Your task to perform on an android device: turn off improve location accuracy Image 0: 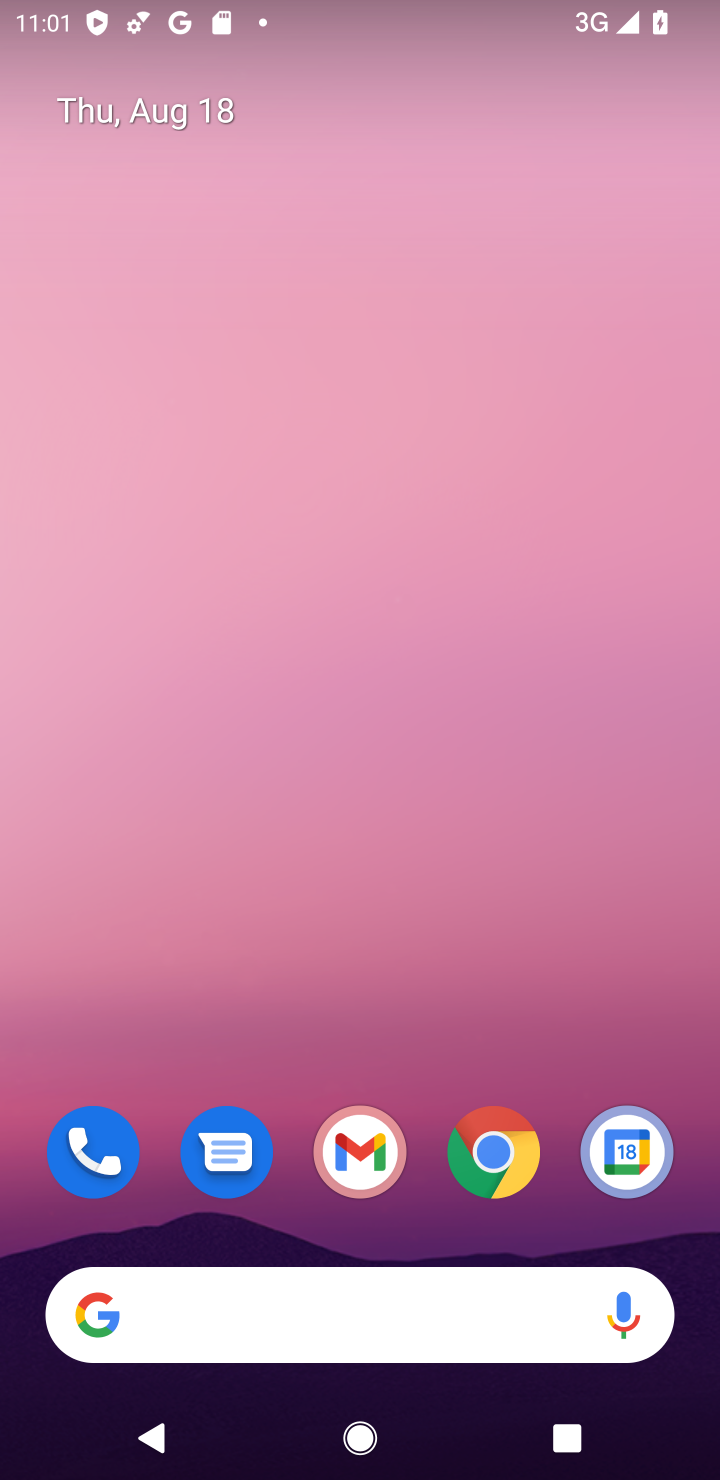
Step 0: drag from (387, 1038) to (475, 22)
Your task to perform on an android device: turn off improve location accuracy Image 1: 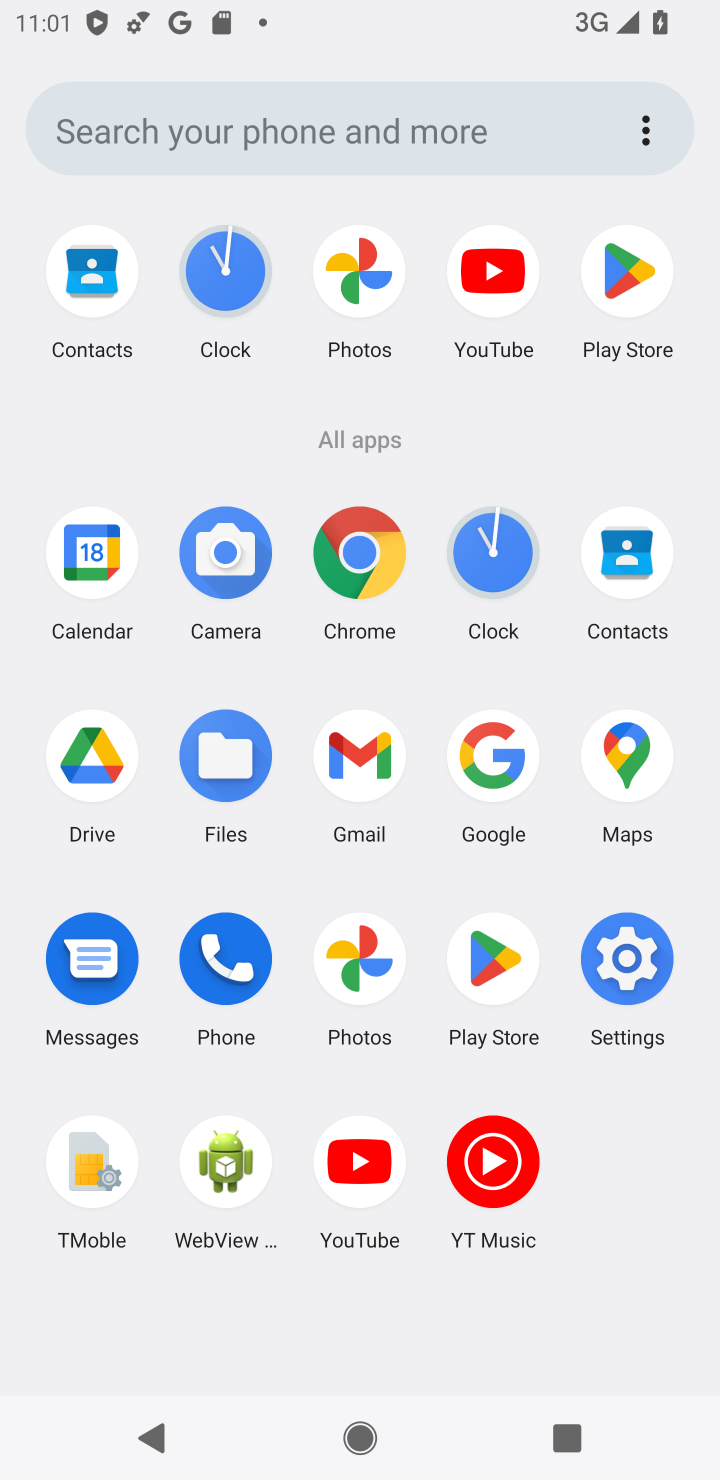
Step 1: click (640, 959)
Your task to perform on an android device: turn off improve location accuracy Image 2: 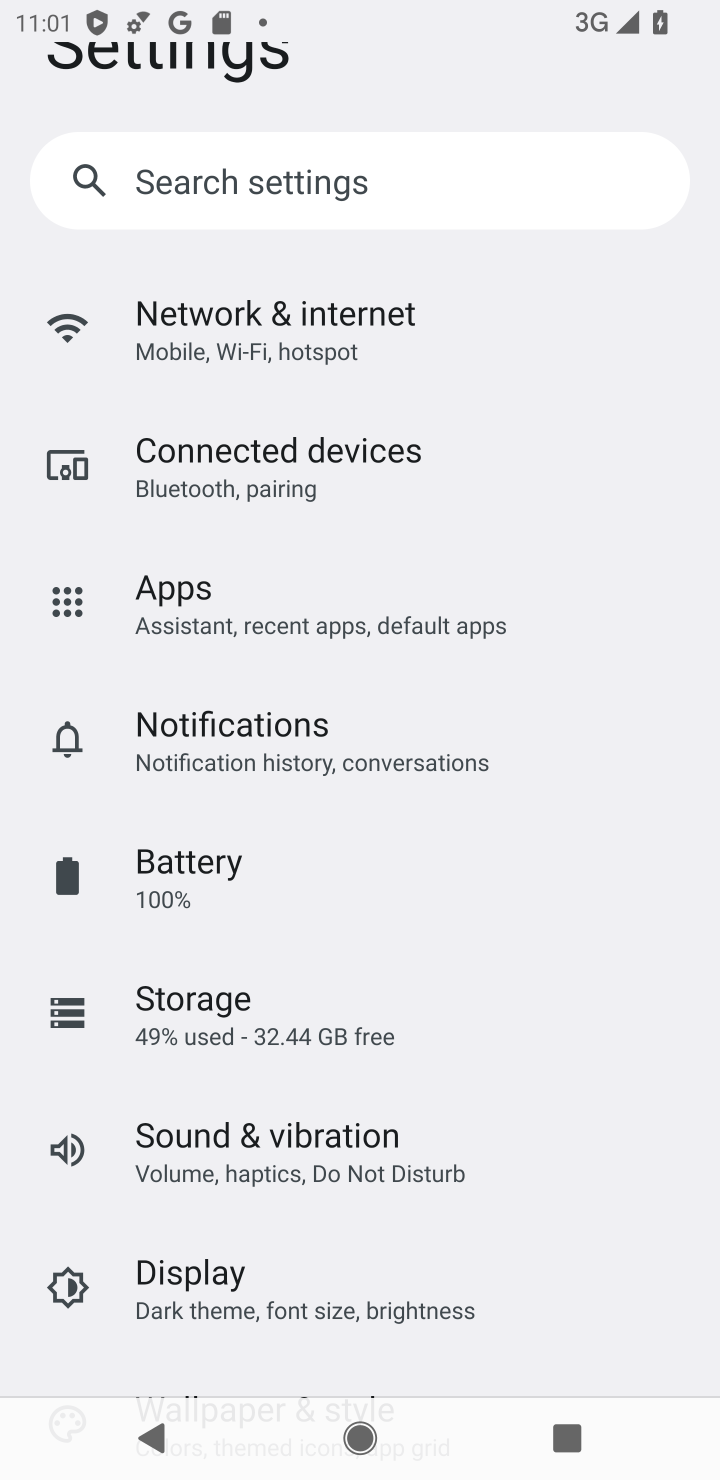
Step 2: drag from (349, 1178) to (349, 420)
Your task to perform on an android device: turn off improve location accuracy Image 3: 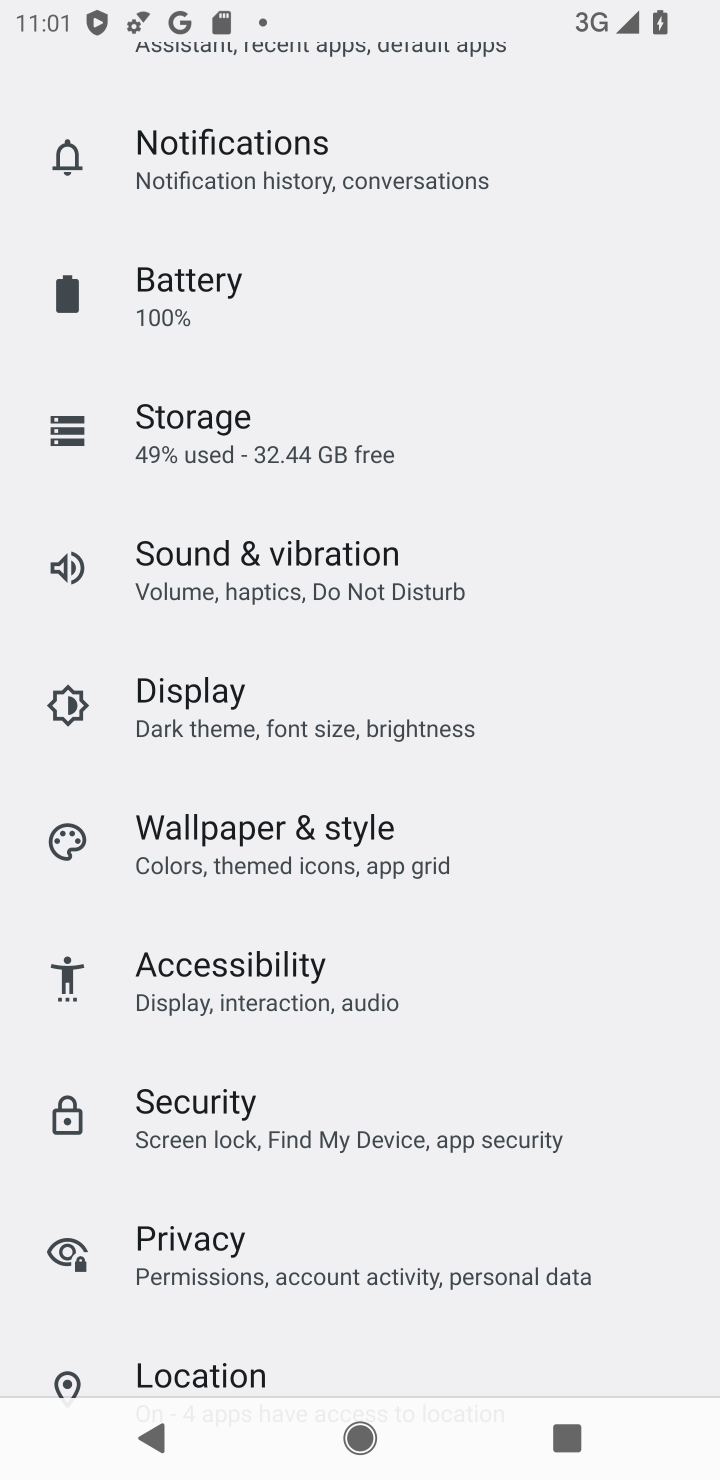
Step 3: drag from (349, 1247) to (369, 622)
Your task to perform on an android device: turn off improve location accuracy Image 4: 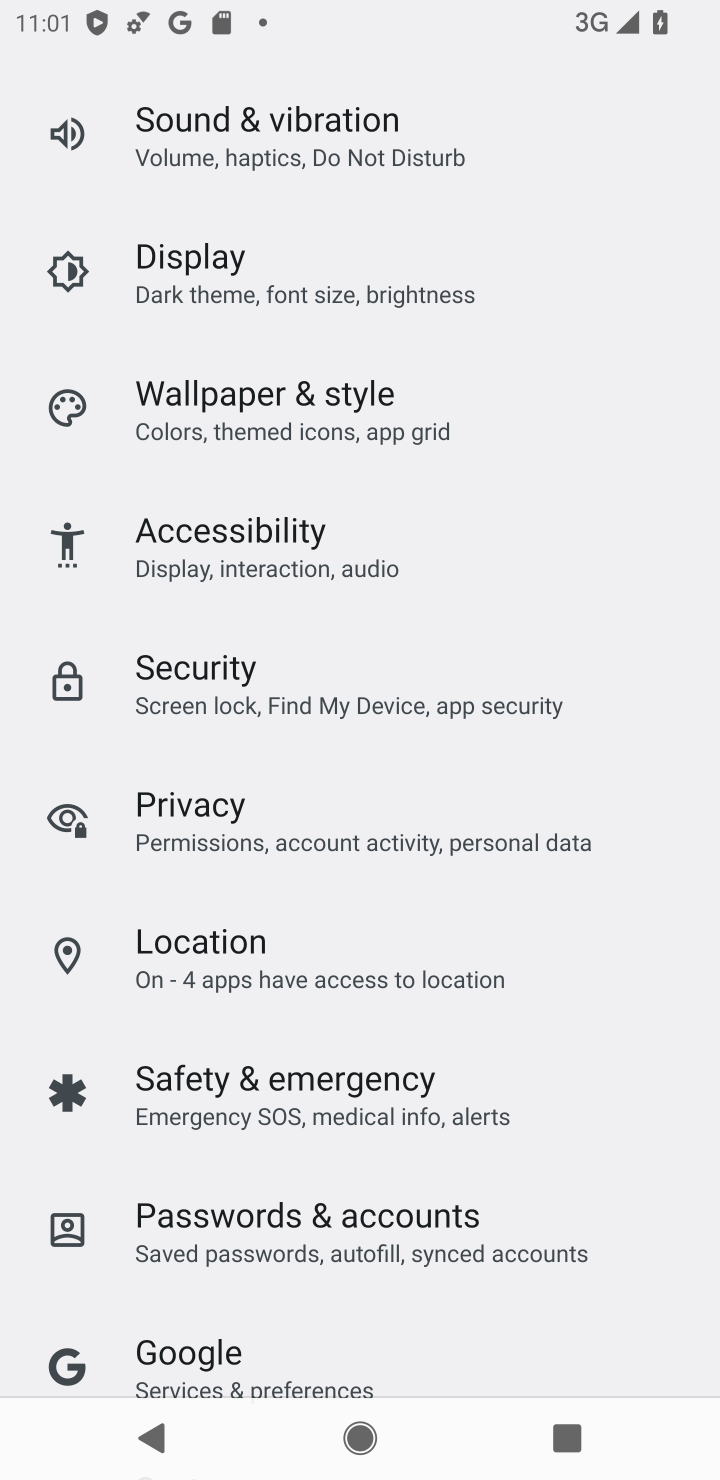
Step 4: click (364, 972)
Your task to perform on an android device: turn off improve location accuracy Image 5: 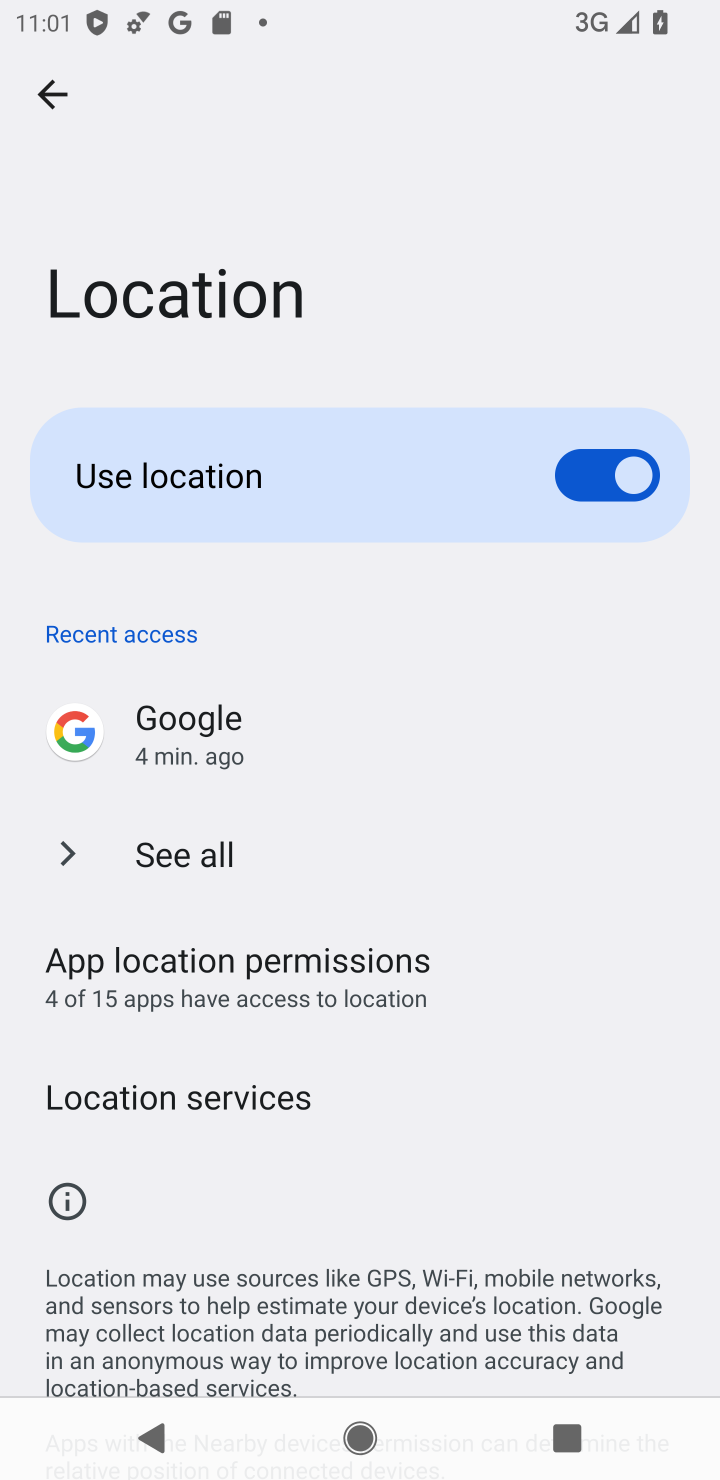
Step 5: click (310, 1103)
Your task to perform on an android device: turn off improve location accuracy Image 6: 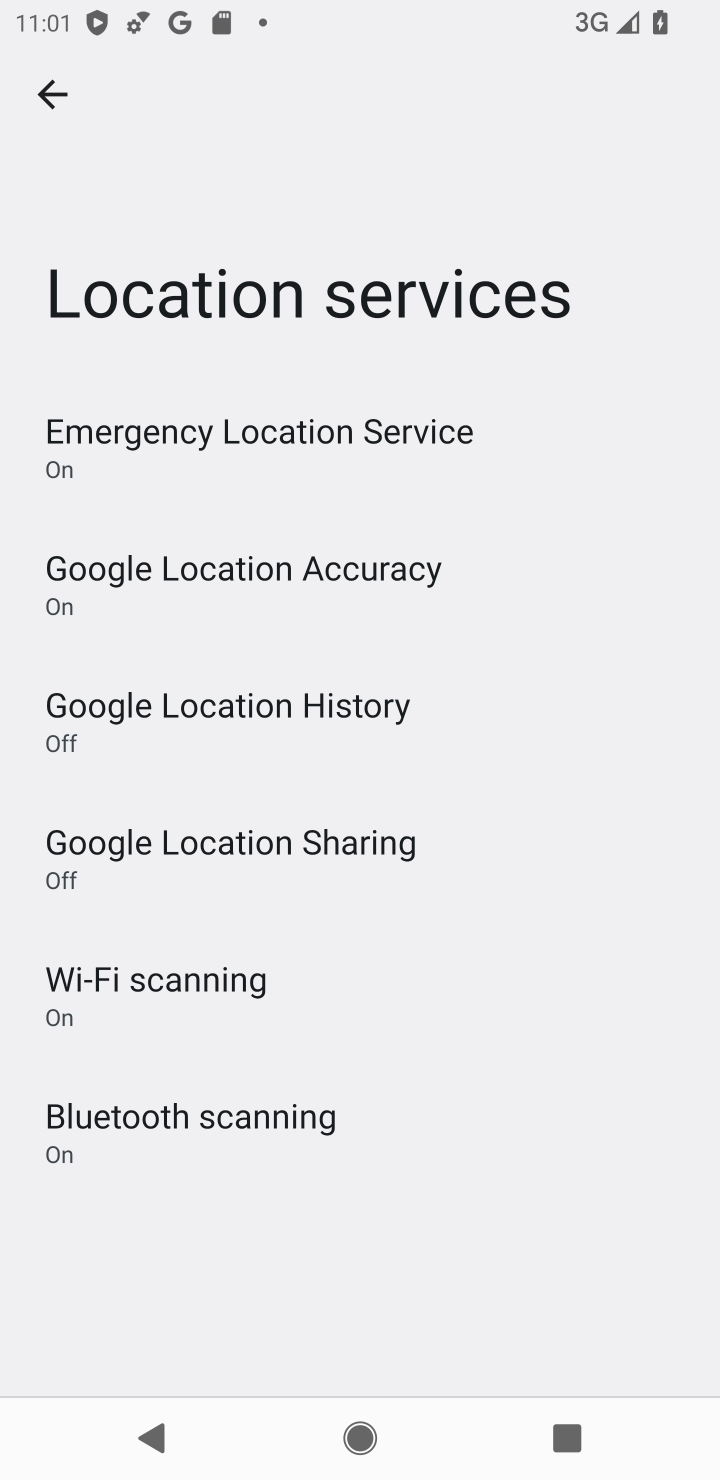
Step 6: click (298, 582)
Your task to perform on an android device: turn off improve location accuracy Image 7: 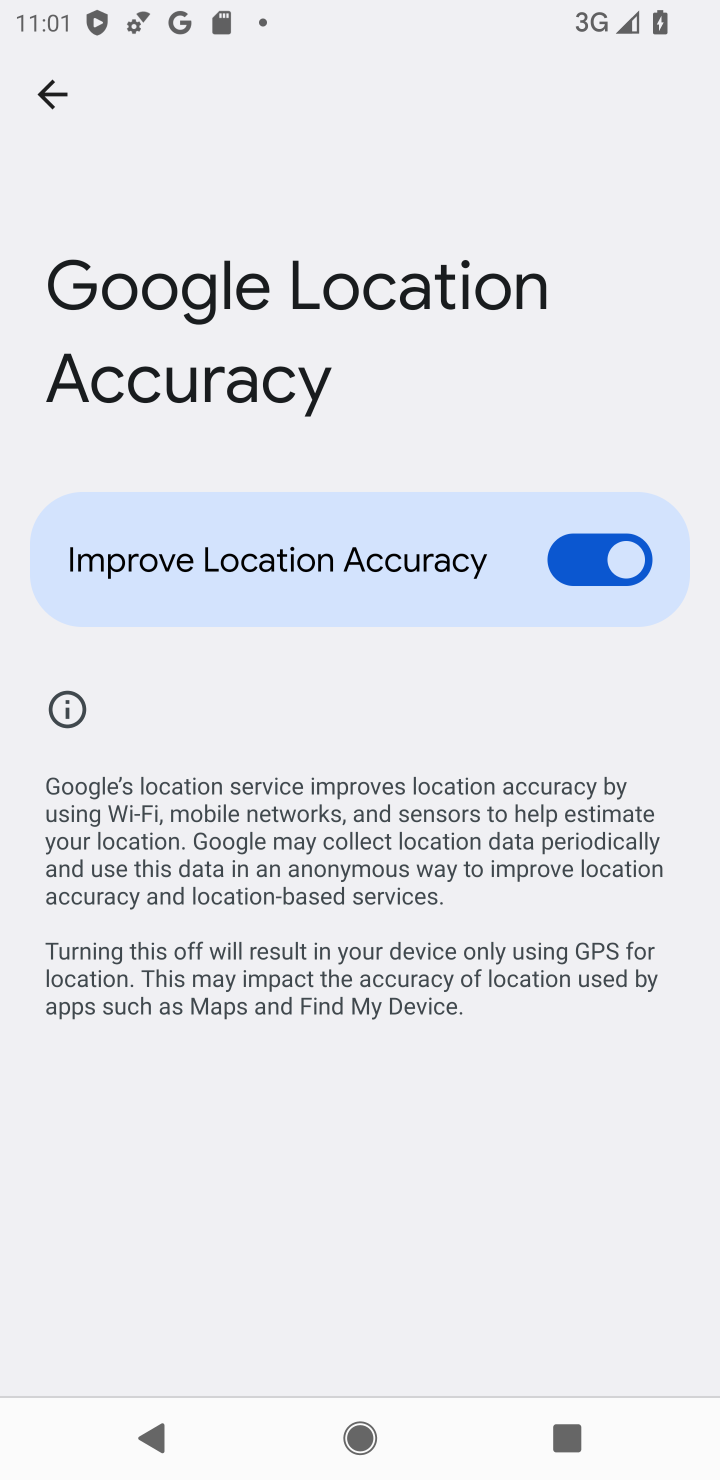
Step 7: click (588, 551)
Your task to perform on an android device: turn off improve location accuracy Image 8: 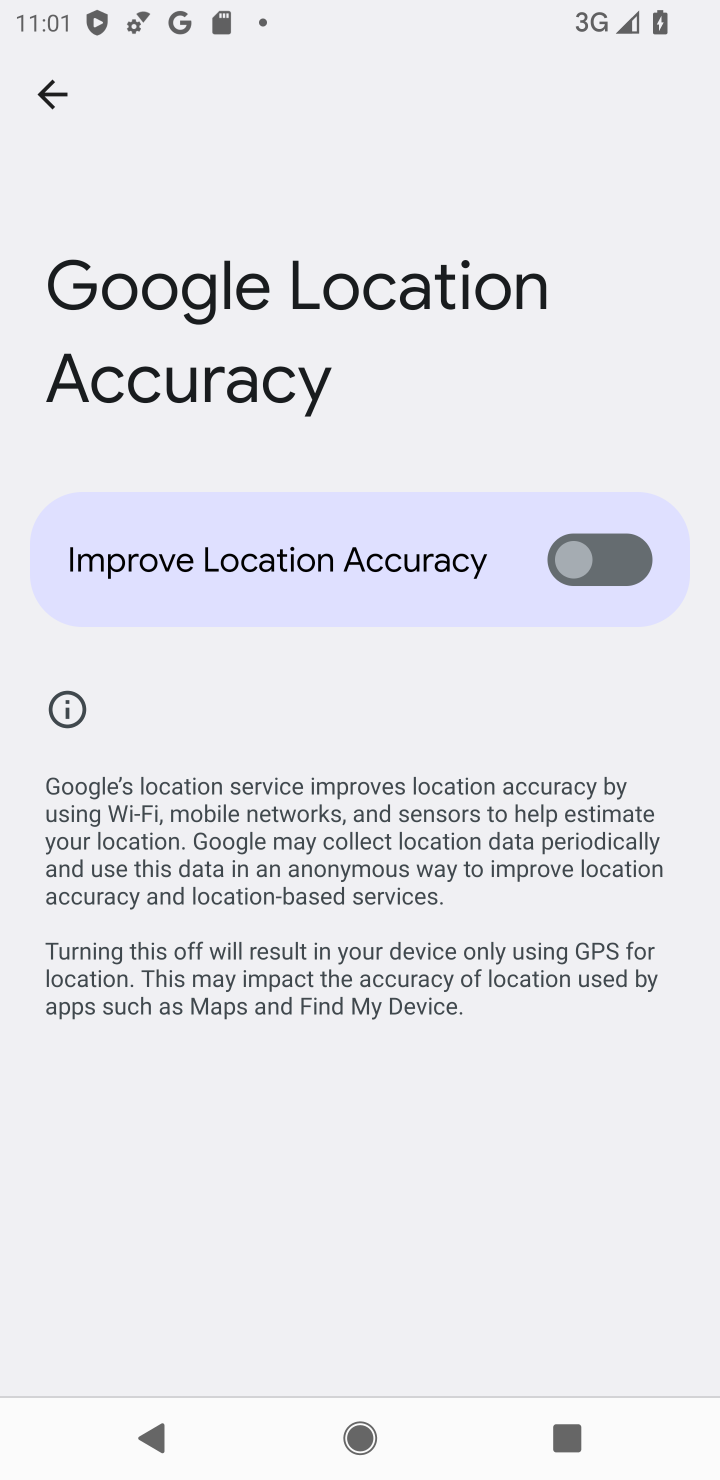
Step 8: click (44, 102)
Your task to perform on an android device: turn off improve location accuracy Image 9: 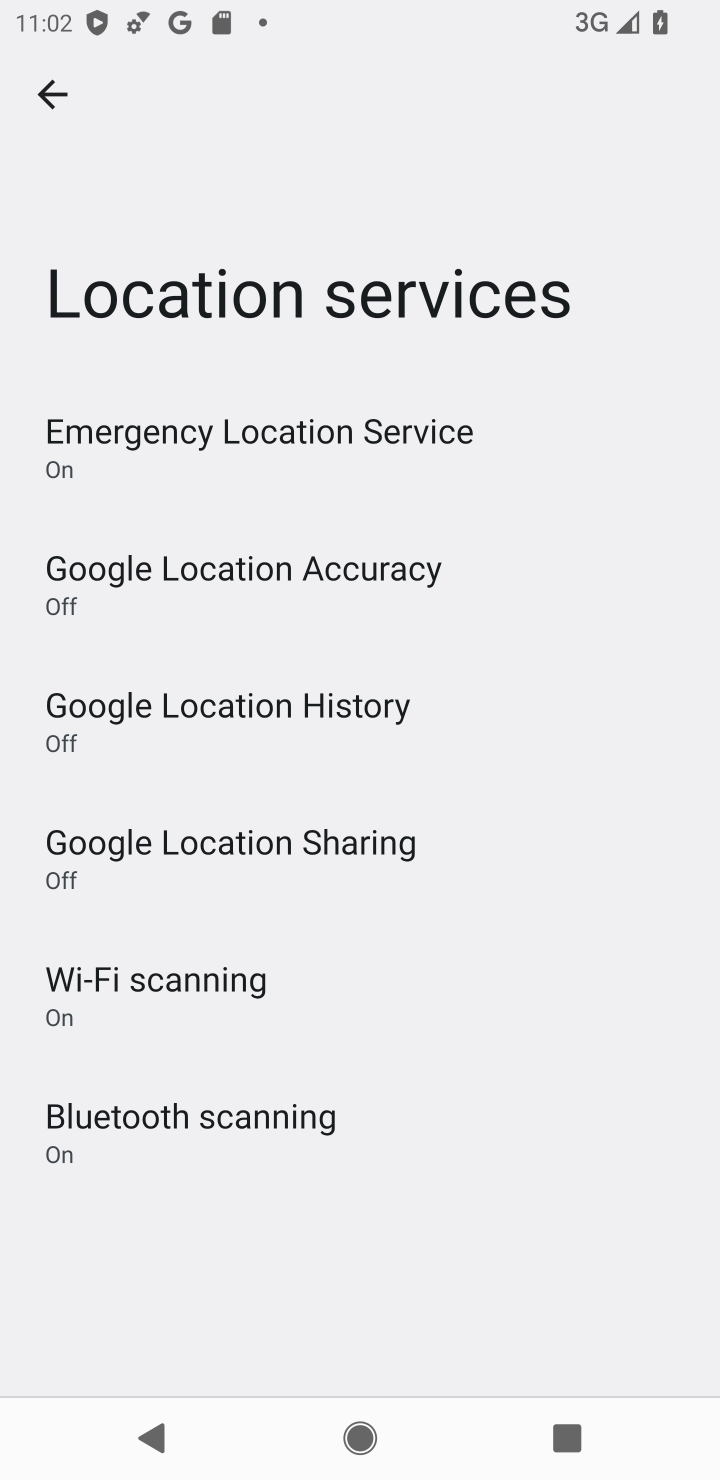
Step 9: task complete